Your task to perform on an android device: turn on wifi Image 0: 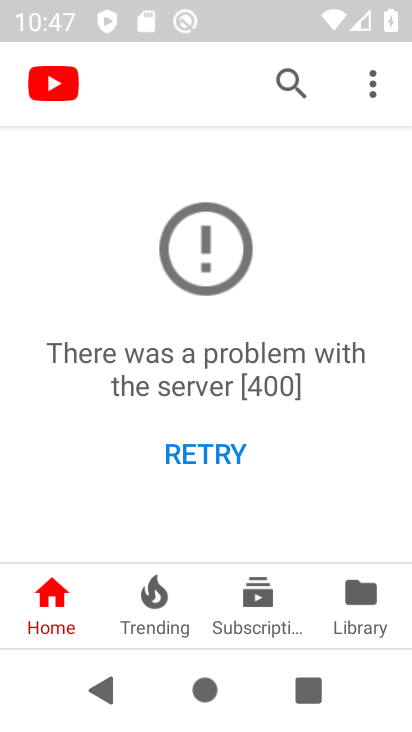
Step 0: press home button
Your task to perform on an android device: turn on wifi Image 1: 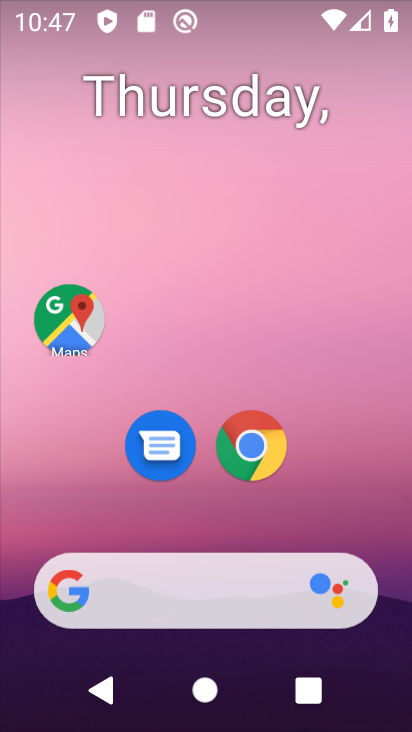
Step 1: drag from (169, 595) to (354, 22)
Your task to perform on an android device: turn on wifi Image 2: 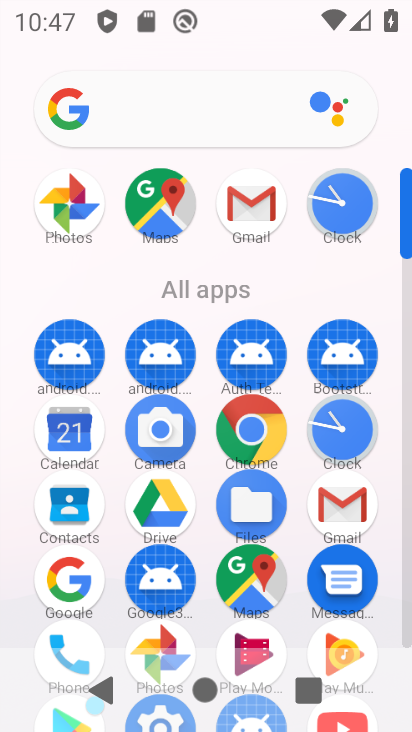
Step 2: drag from (218, 616) to (347, 211)
Your task to perform on an android device: turn on wifi Image 3: 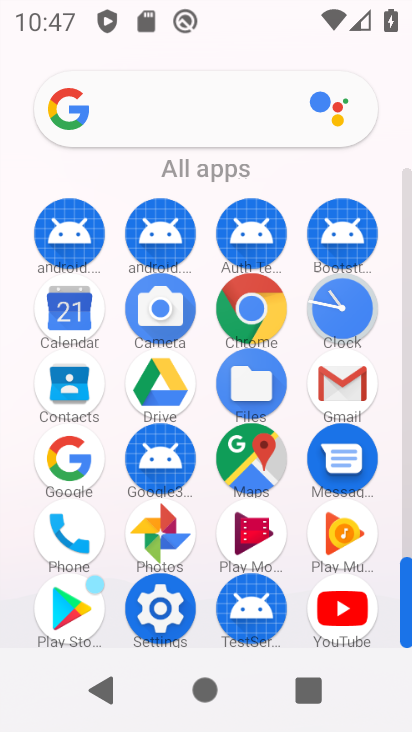
Step 3: click (164, 600)
Your task to perform on an android device: turn on wifi Image 4: 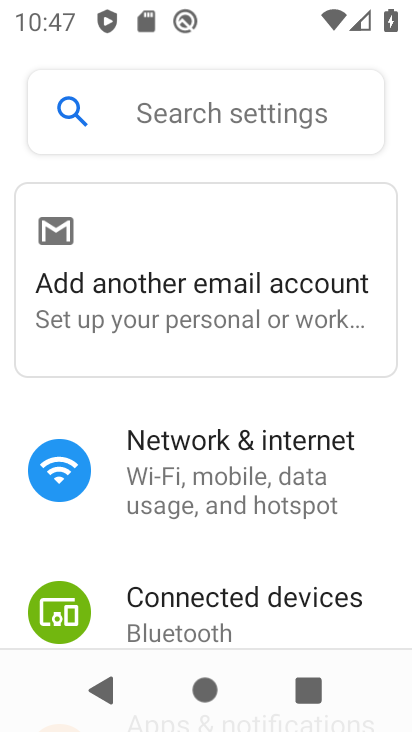
Step 4: click (218, 506)
Your task to perform on an android device: turn on wifi Image 5: 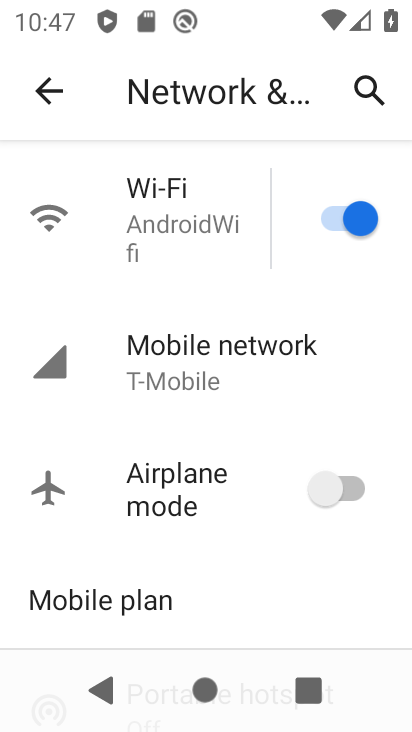
Step 5: task complete